Your task to perform on an android device: Open maps Image 0: 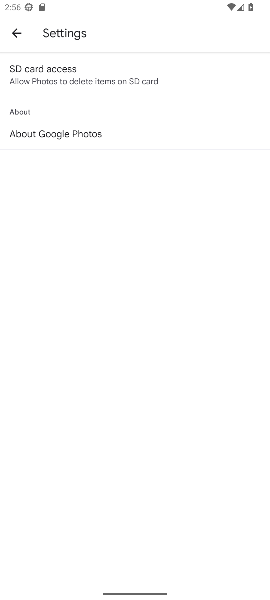
Step 0: press home button
Your task to perform on an android device: Open maps Image 1: 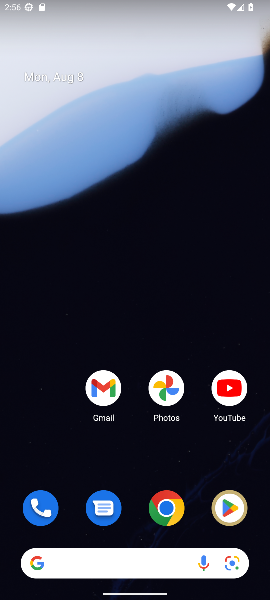
Step 1: drag from (55, 439) to (65, 57)
Your task to perform on an android device: Open maps Image 2: 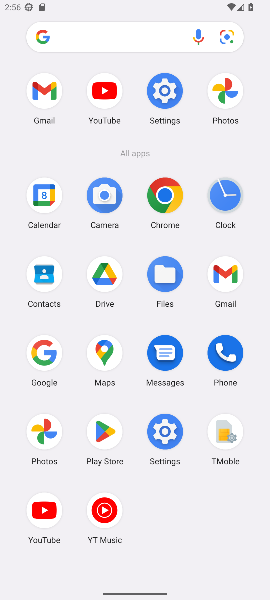
Step 2: click (106, 349)
Your task to perform on an android device: Open maps Image 3: 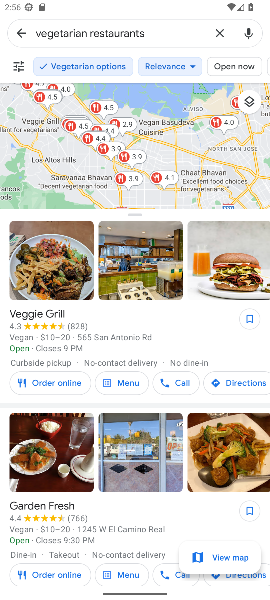
Step 3: click (24, 35)
Your task to perform on an android device: Open maps Image 4: 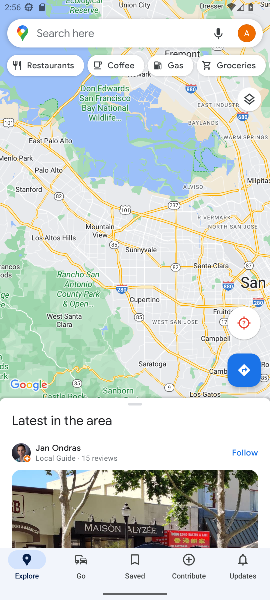
Step 4: task complete